Your task to perform on an android device: Go to eBay Image 0: 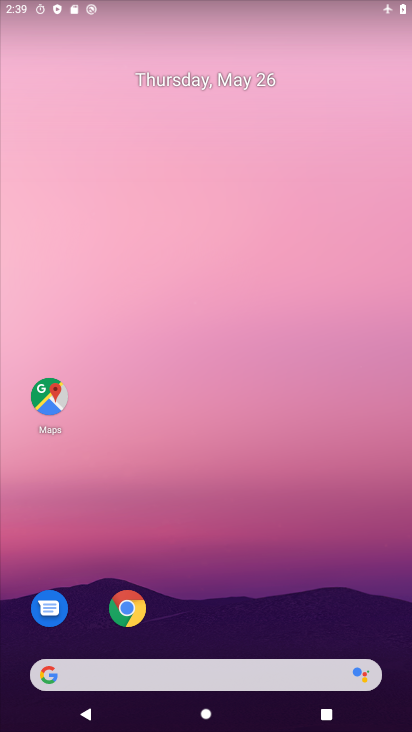
Step 0: drag from (287, 686) to (198, 103)
Your task to perform on an android device: Go to eBay Image 1: 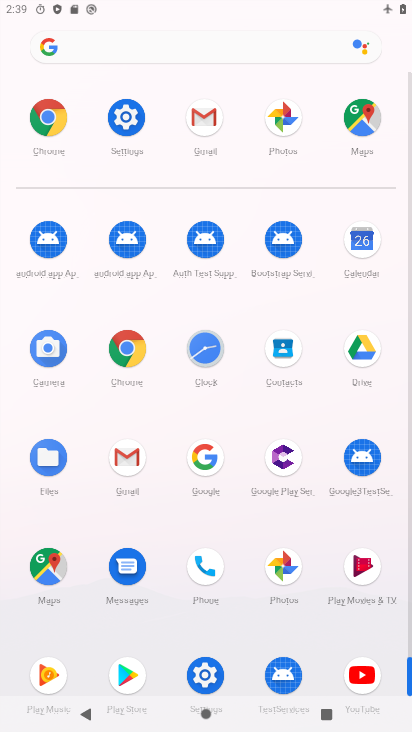
Step 1: click (45, 102)
Your task to perform on an android device: Go to eBay Image 2: 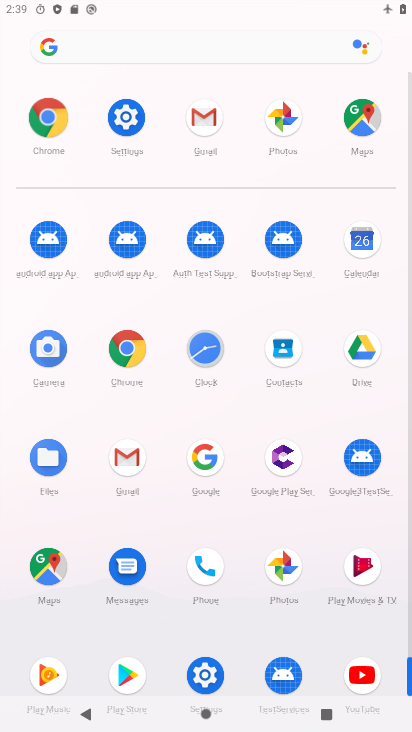
Step 2: click (45, 102)
Your task to perform on an android device: Go to eBay Image 3: 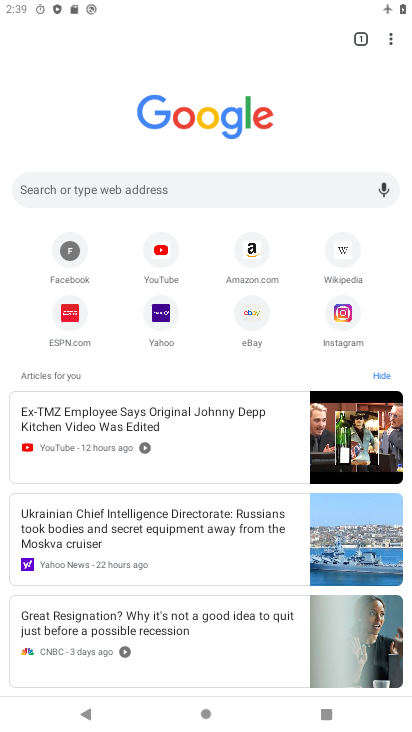
Step 3: click (252, 310)
Your task to perform on an android device: Go to eBay Image 4: 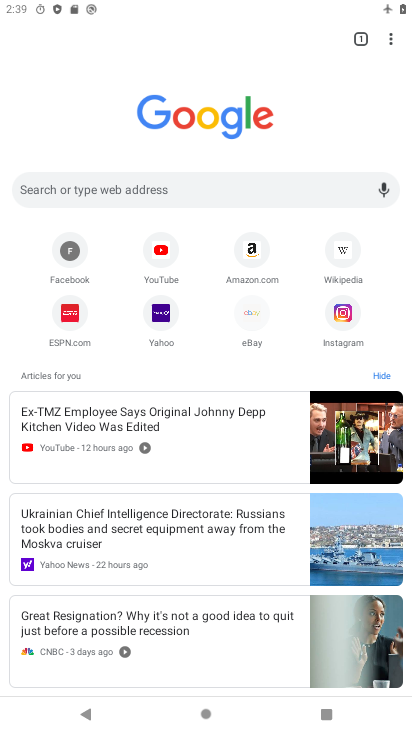
Step 4: click (253, 309)
Your task to perform on an android device: Go to eBay Image 5: 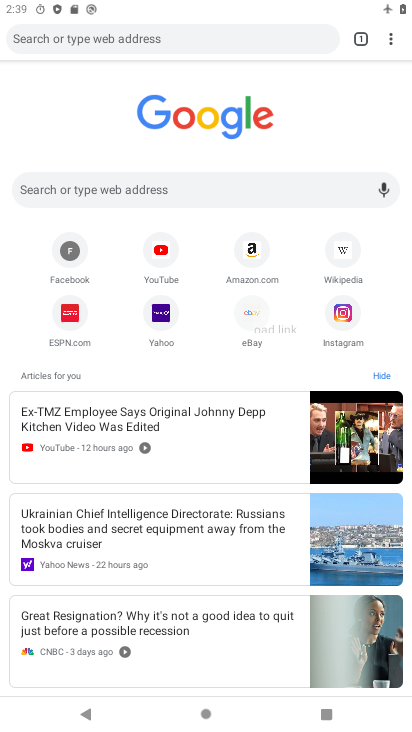
Step 5: click (254, 309)
Your task to perform on an android device: Go to eBay Image 6: 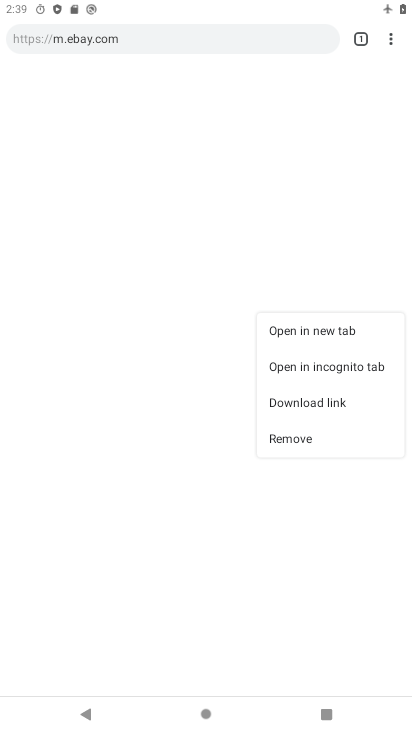
Step 6: click (254, 309)
Your task to perform on an android device: Go to eBay Image 7: 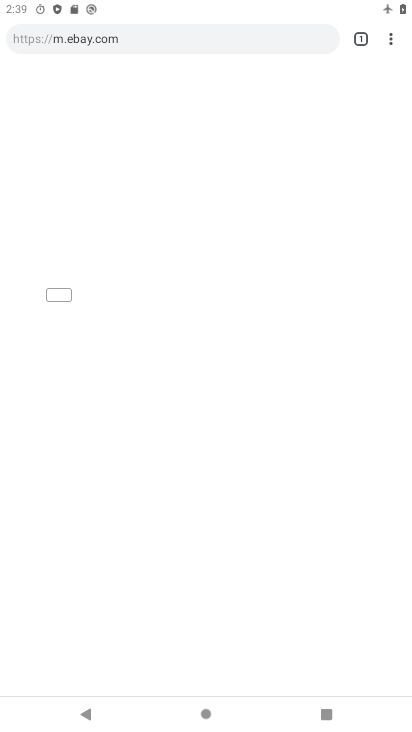
Step 7: click (254, 309)
Your task to perform on an android device: Go to eBay Image 8: 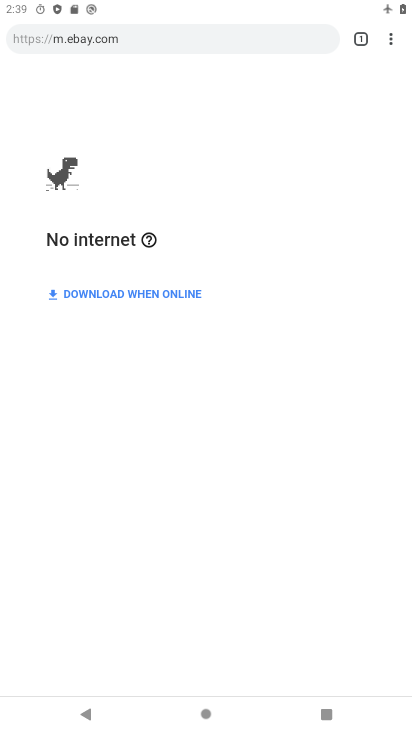
Step 8: click (253, 308)
Your task to perform on an android device: Go to eBay Image 9: 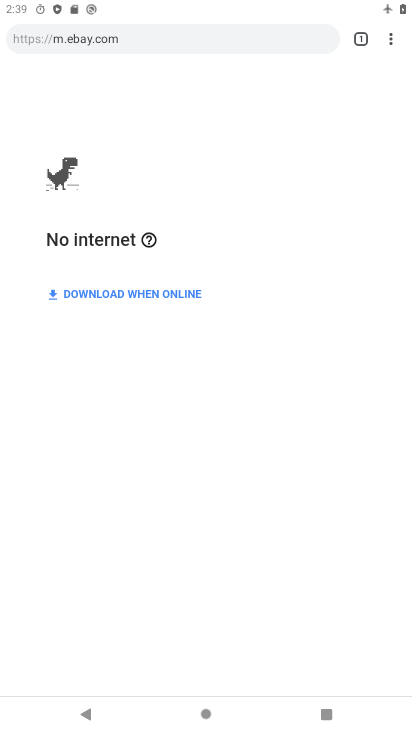
Step 9: task complete